Your task to perform on an android device: How big is a giraffe? Image 0: 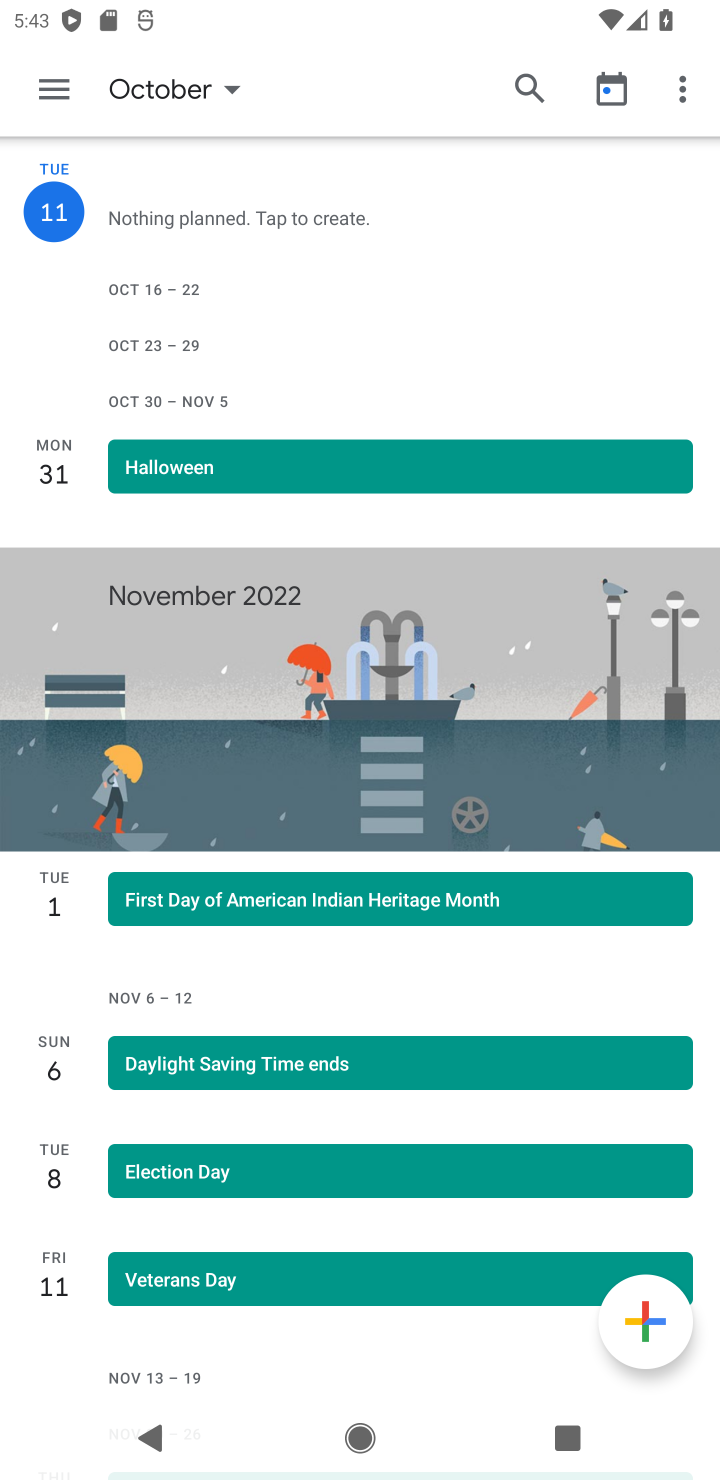
Step 0: press home button
Your task to perform on an android device: How big is a giraffe? Image 1: 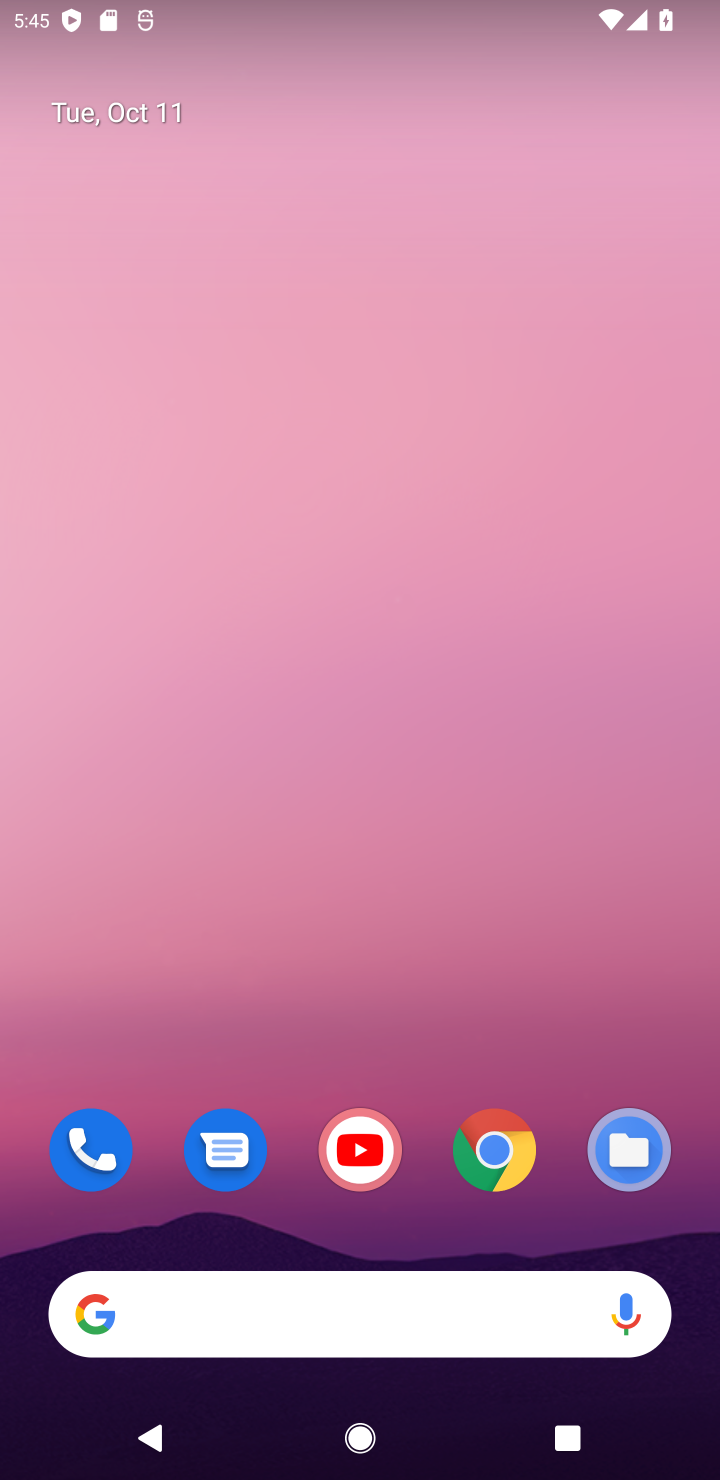
Step 1: click (479, 1140)
Your task to perform on an android device: How big is a giraffe? Image 2: 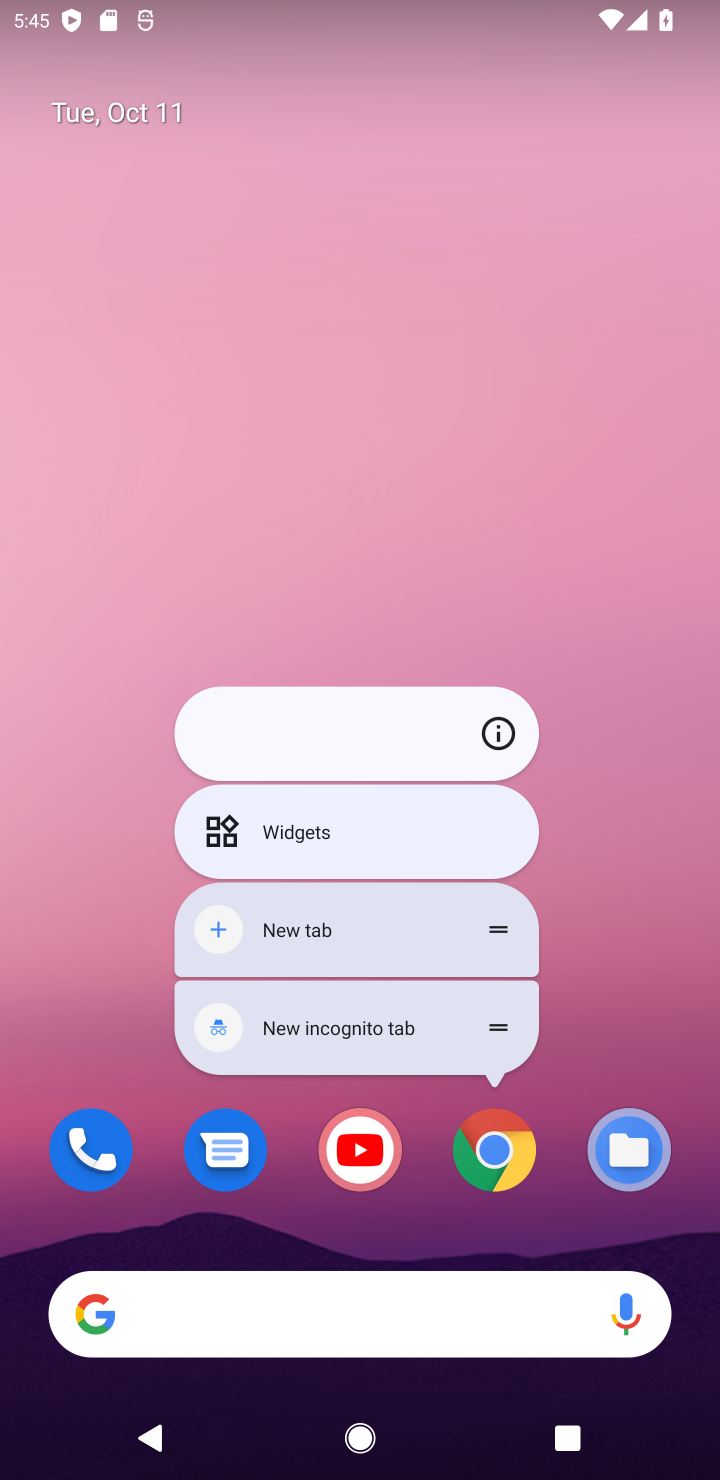
Step 2: click (484, 1178)
Your task to perform on an android device: How big is a giraffe? Image 3: 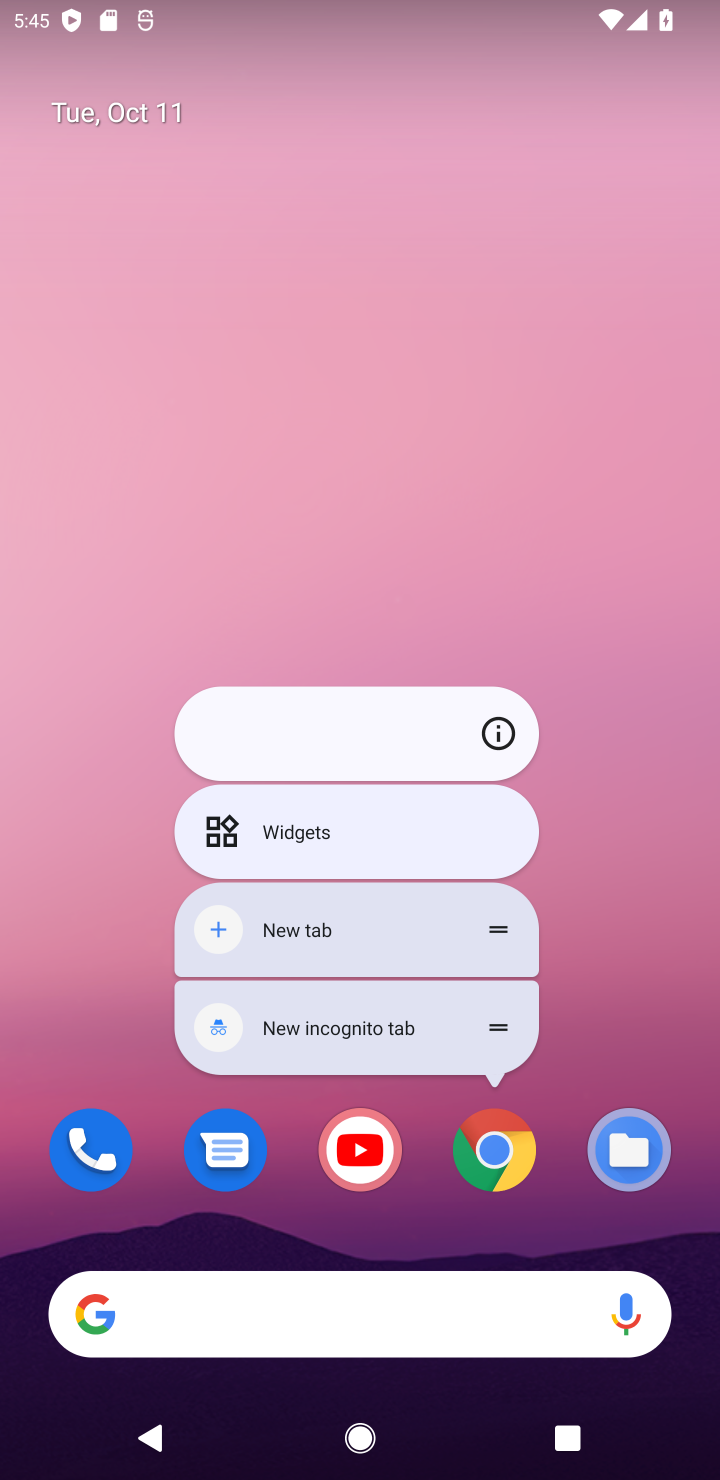
Step 3: click (591, 1044)
Your task to perform on an android device: How big is a giraffe? Image 4: 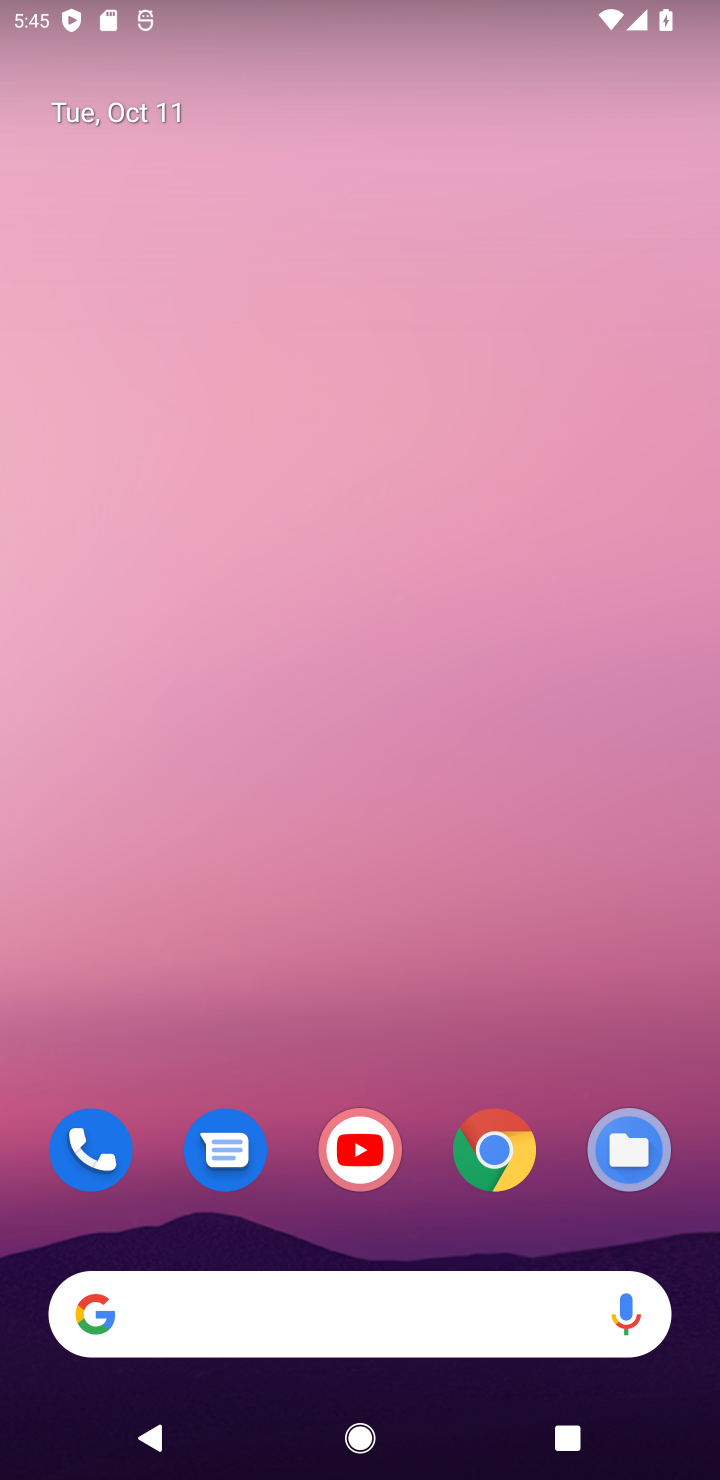
Step 4: click (495, 1168)
Your task to perform on an android device: How big is a giraffe? Image 5: 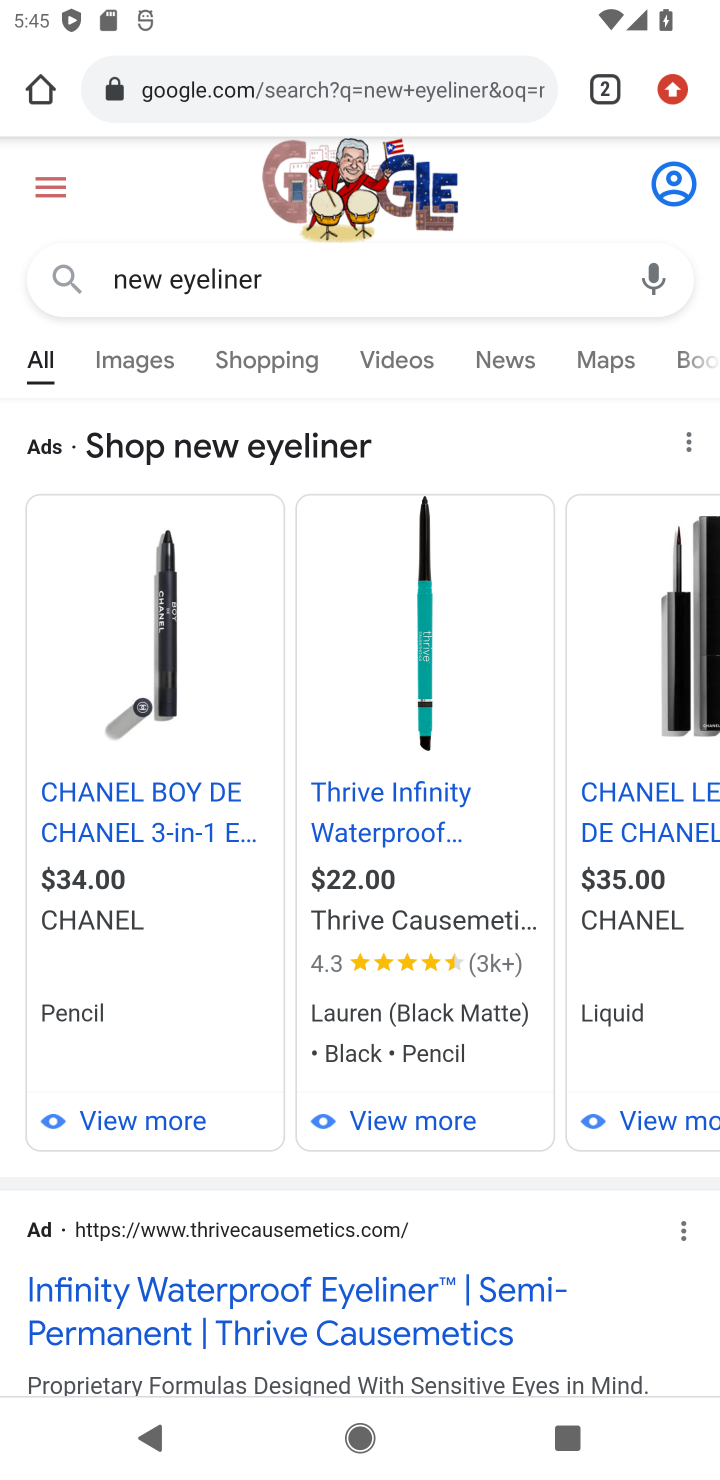
Step 5: click (253, 100)
Your task to perform on an android device: How big is a giraffe? Image 6: 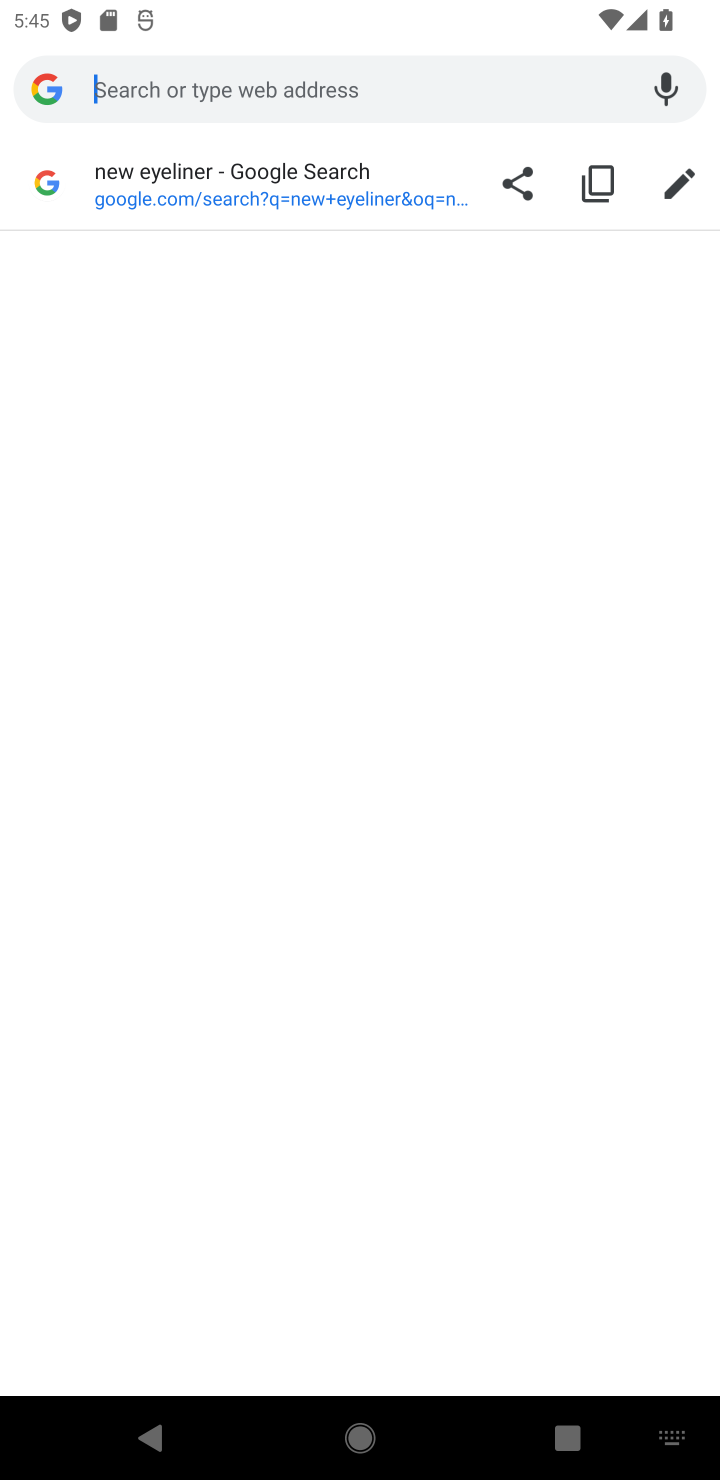
Step 6: type "How big is a giraffe"
Your task to perform on an android device: How big is a giraffe? Image 7: 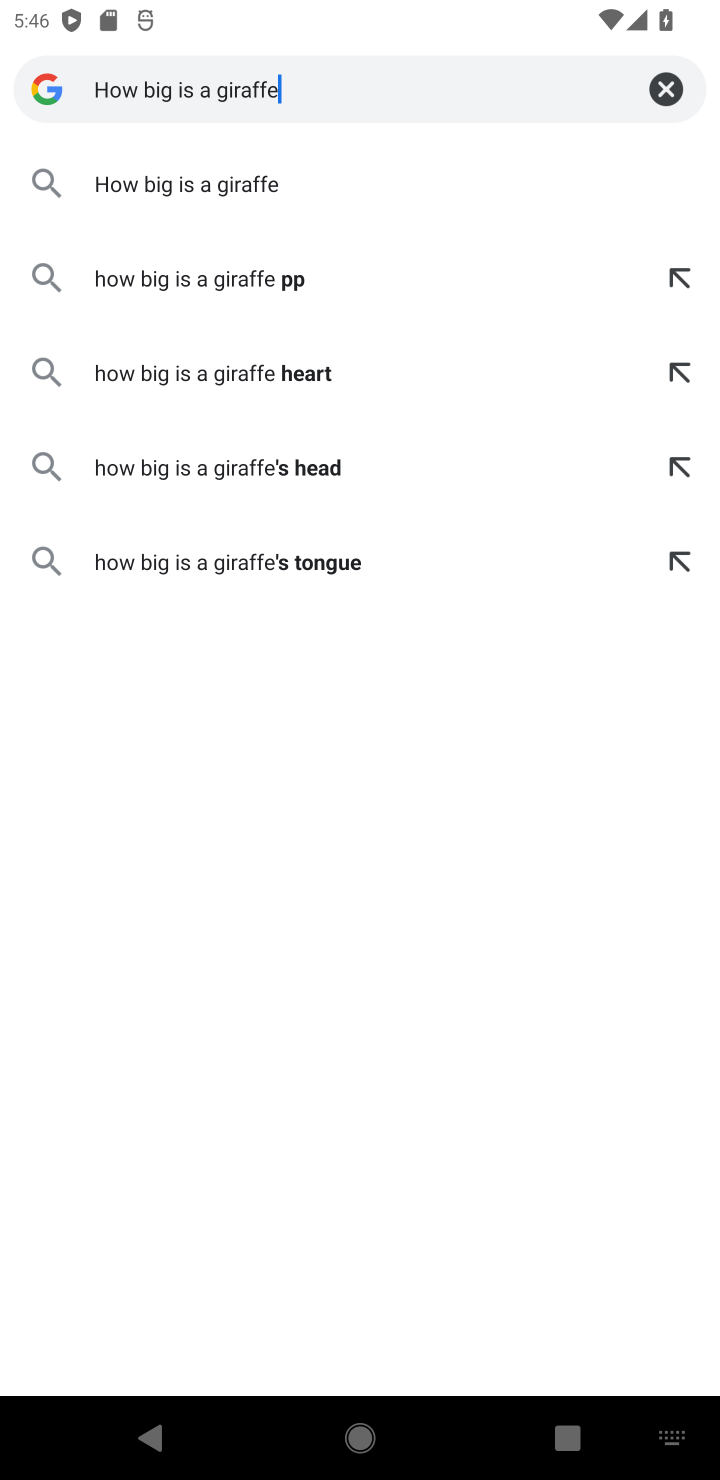
Step 7: click (227, 194)
Your task to perform on an android device: How big is a giraffe? Image 8: 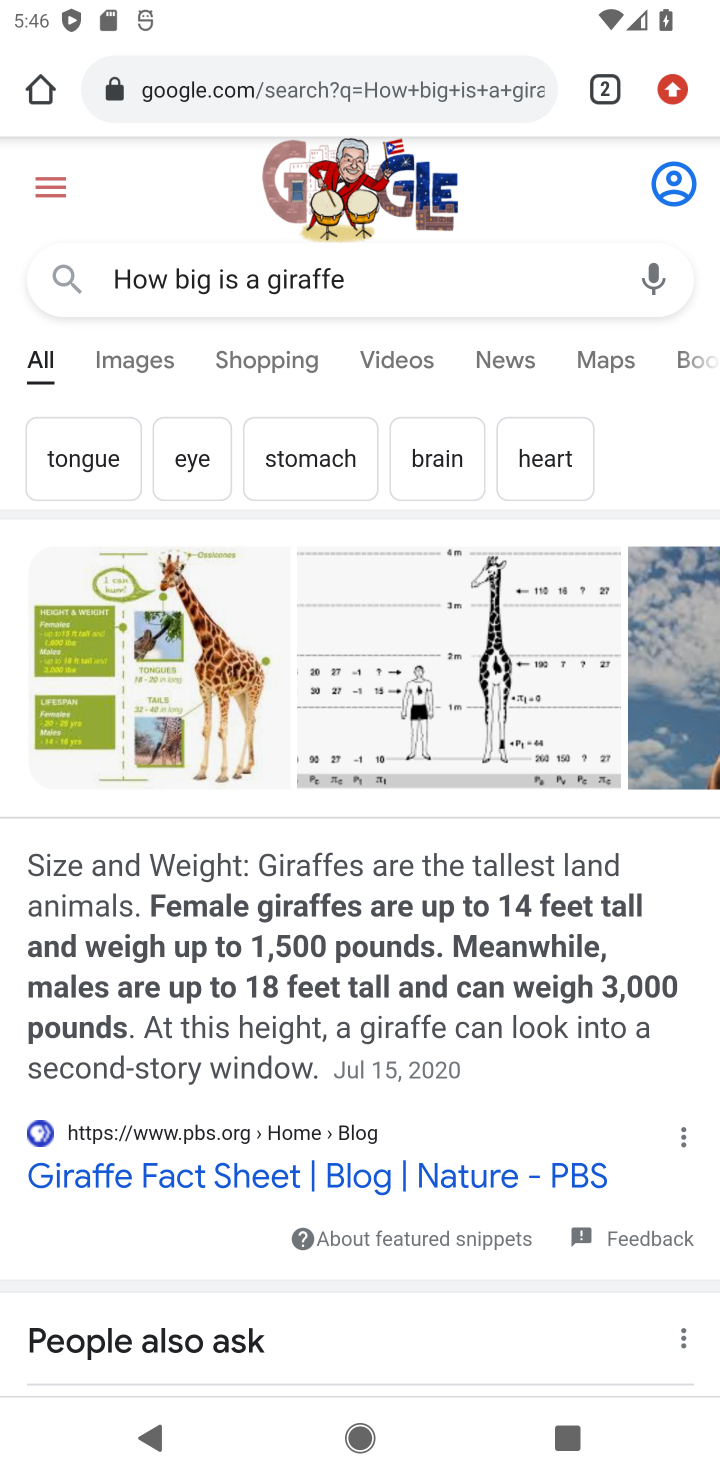
Step 8: task complete